Your task to perform on an android device: set default search engine in the chrome app Image 0: 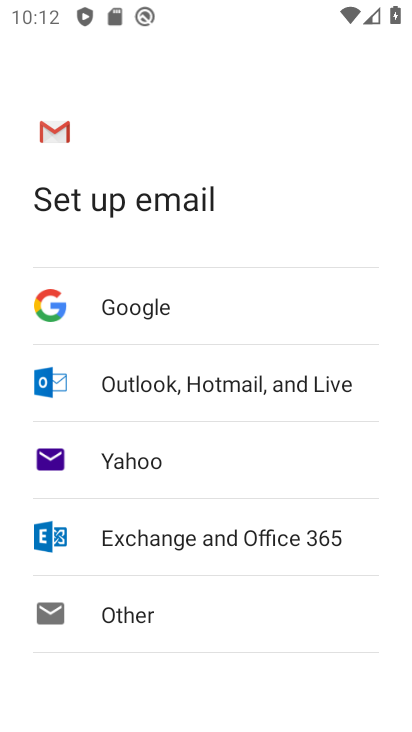
Step 0: press home button
Your task to perform on an android device: set default search engine in the chrome app Image 1: 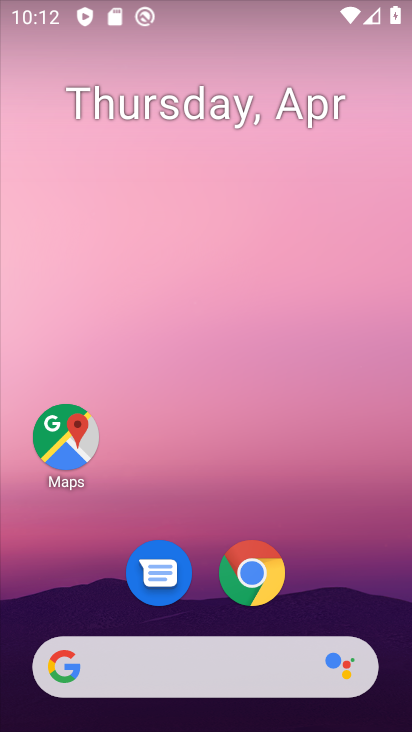
Step 1: click (274, 581)
Your task to perform on an android device: set default search engine in the chrome app Image 2: 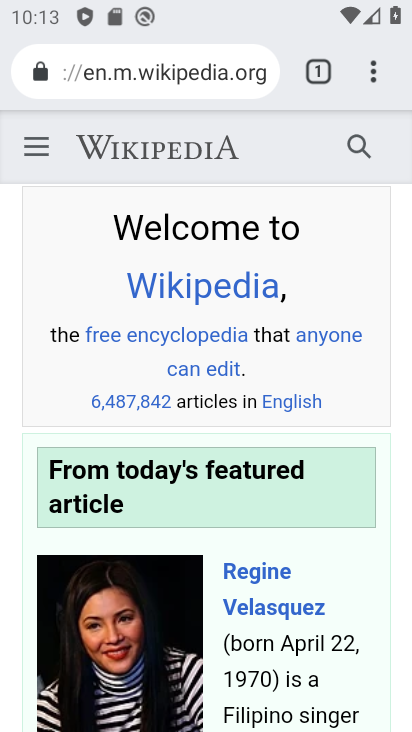
Step 2: click (377, 86)
Your task to perform on an android device: set default search engine in the chrome app Image 3: 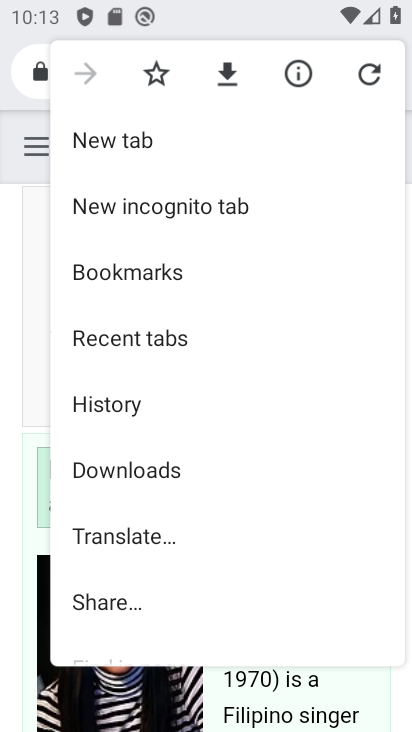
Step 3: drag from (147, 586) to (201, 396)
Your task to perform on an android device: set default search engine in the chrome app Image 4: 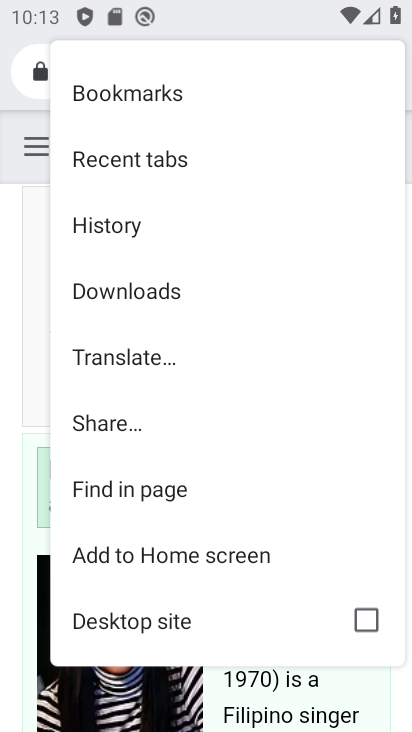
Step 4: drag from (213, 634) to (226, 484)
Your task to perform on an android device: set default search engine in the chrome app Image 5: 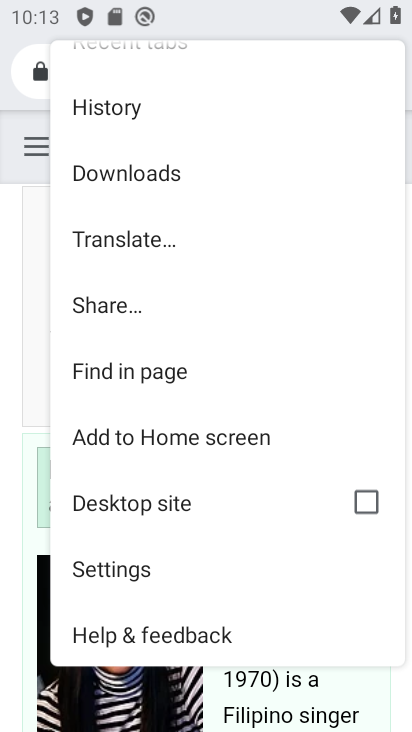
Step 5: click (227, 581)
Your task to perform on an android device: set default search engine in the chrome app Image 6: 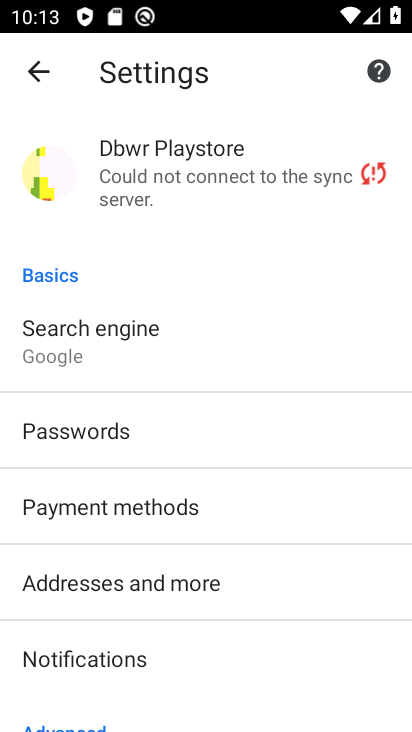
Step 6: drag from (229, 671) to (247, 596)
Your task to perform on an android device: set default search engine in the chrome app Image 7: 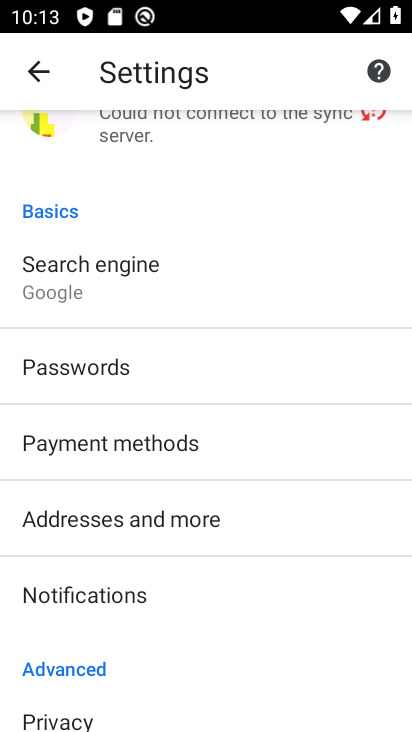
Step 7: click (236, 268)
Your task to perform on an android device: set default search engine in the chrome app Image 8: 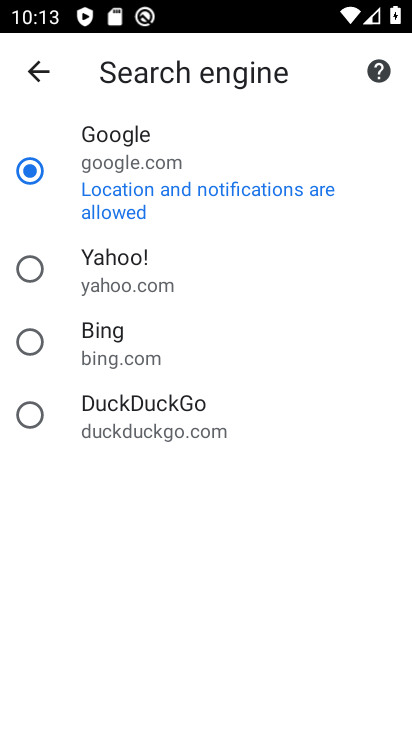
Step 8: click (164, 274)
Your task to perform on an android device: set default search engine in the chrome app Image 9: 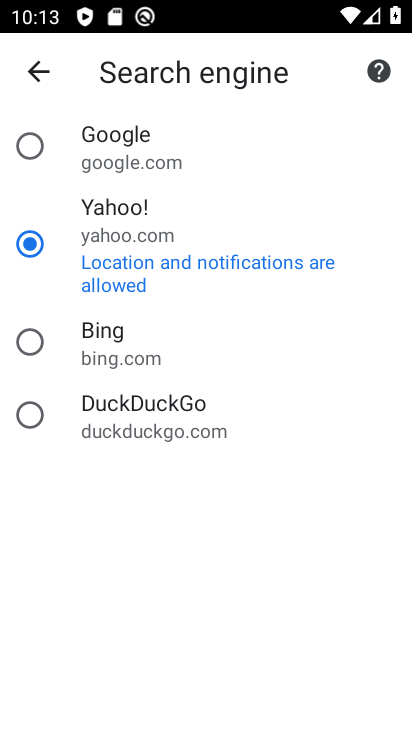
Step 9: task complete